Your task to perform on an android device: Open the stopwatch Image 0: 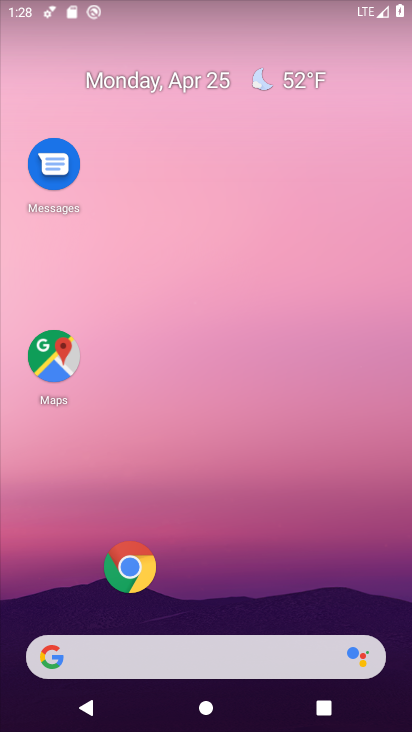
Step 0: drag from (219, 541) to (242, 192)
Your task to perform on an android device: Open the stopwatch Image 1: 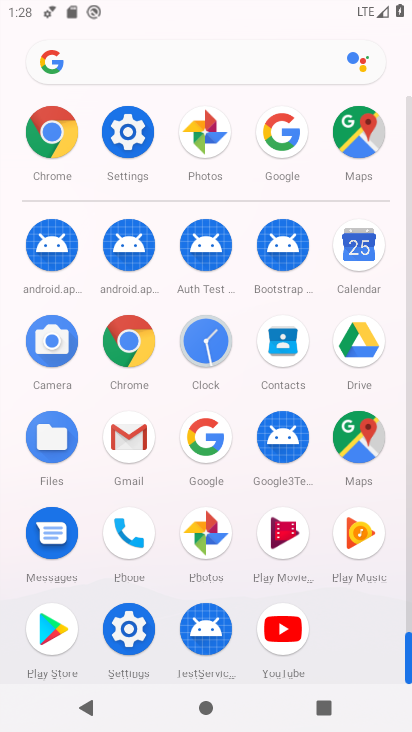
Step 1: click (212, 365)
Your task to perform on an android device: Open the stopwatch Image 2: 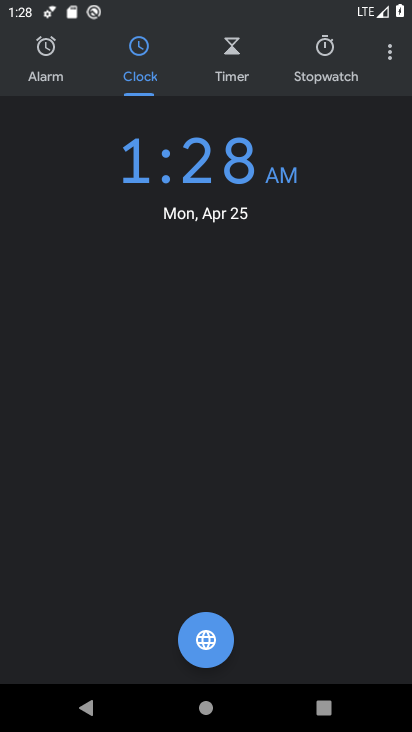
Step 2: click (331, 84)
Your task to perform on an android device: Open the stopwatch Image 3: 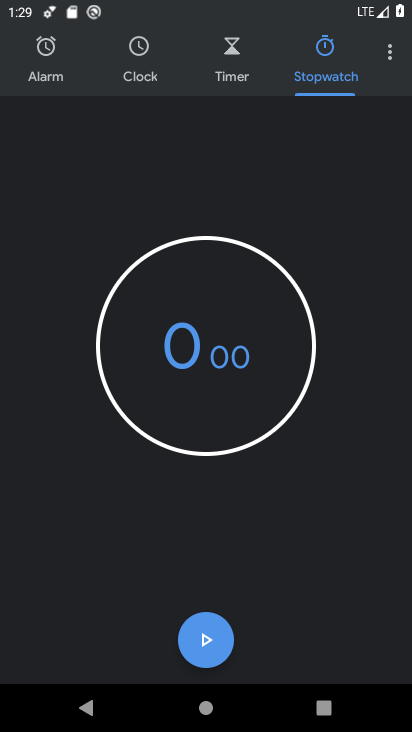
Step 3: task complete